Your task to perform on an android device: toggle show notifications on the lock screen Image 0: 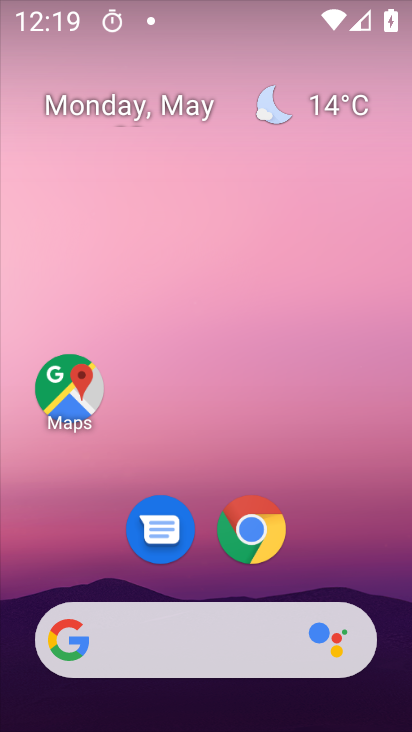
Step 0: drag from (387, 593) to (353, 171)
Your task to perform on an android device: toggle show notifications on the lock screen Image 1: 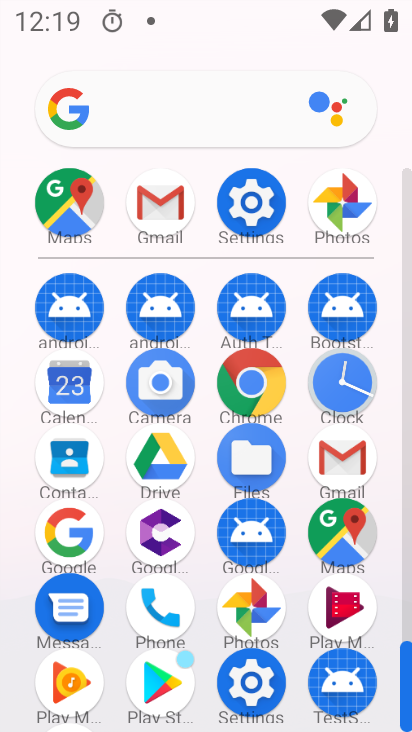
Step 1: click (276, 228)
Your task to perform on an android device: toggle show notifications on the lock screen Image 2: 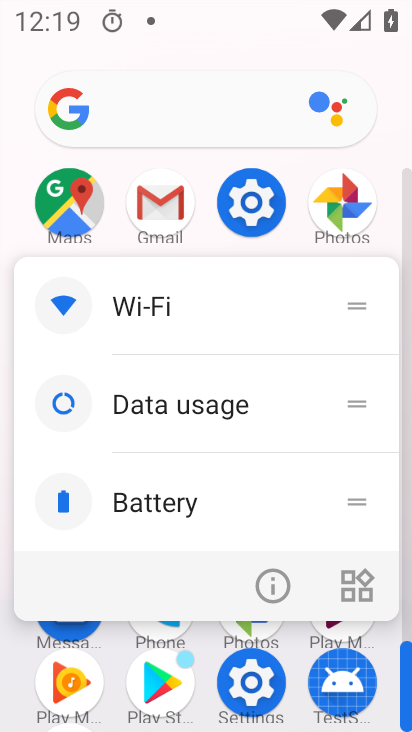
Step 2: click (258, 209)
Your task to perform on an android device: toggle show notifications on the lock screen Image 3: 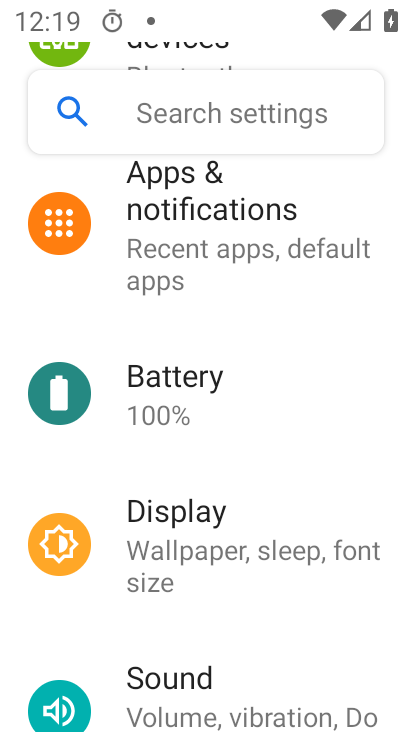
Step 3: drag from (353, 611) to (345, 488)
Your task to perform on an android device: toggle show notifications on the lock screen Image 4: 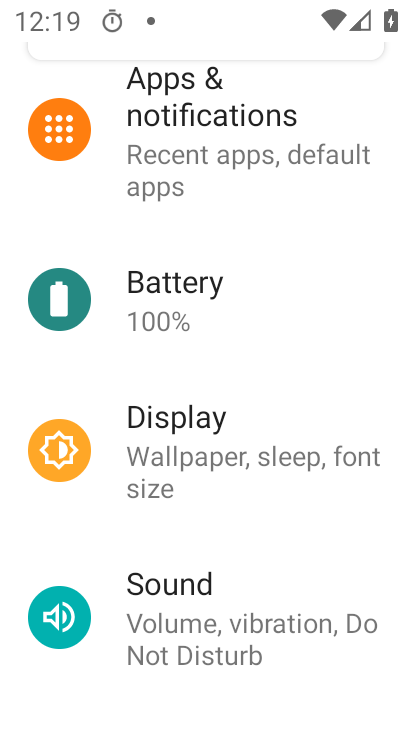
Step 4: drag from (357, 652) to (350, 523)
Your task to perform on an android device: toggle show notifications on the lock screen Image 5: 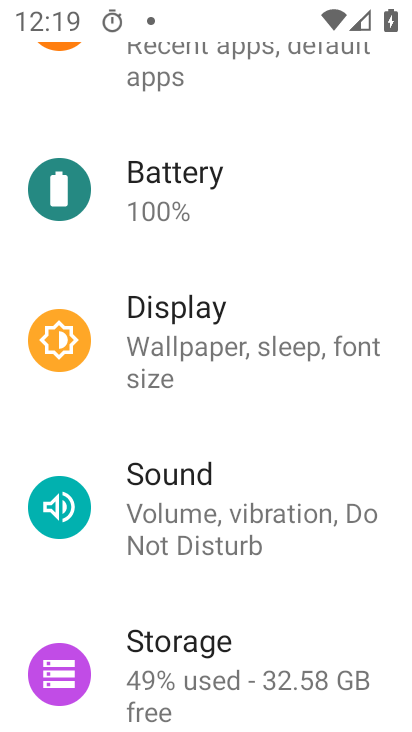
Step 5: drag from (337, 645) to (334, 516)
Your task to perform on an android device: toggle show notifications on the lock screen Image 6: 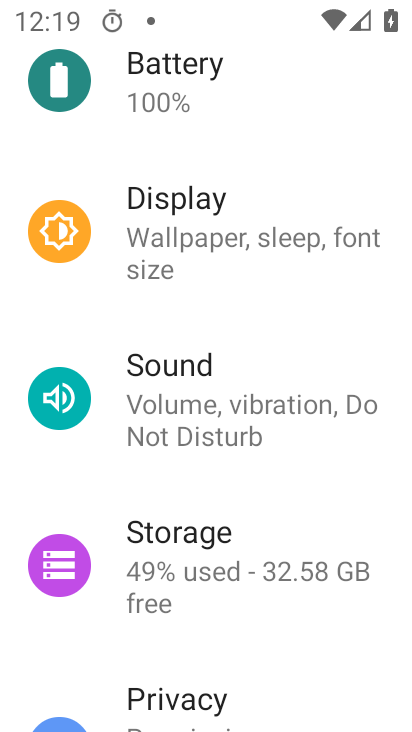
Step 6: drag from (348, 679) to (351, 552)
Your task to perform on an android device: toggle show notifications on the lock screen Image 7: 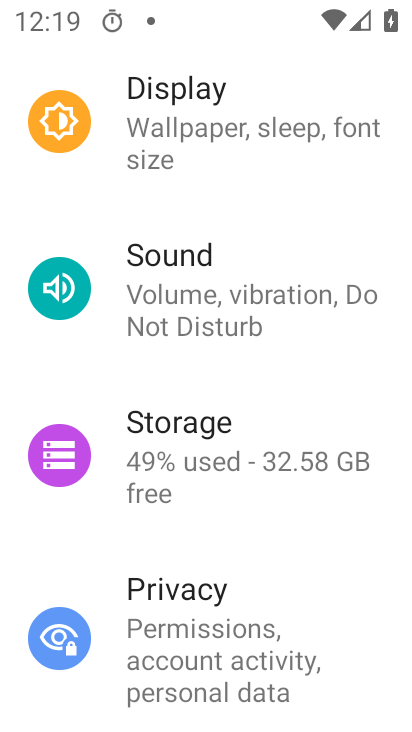
Step 7: drag from (352, 693) to (359, 543)
Your task to perform on an android device: toggle show notifications on the lock screen Image 8: 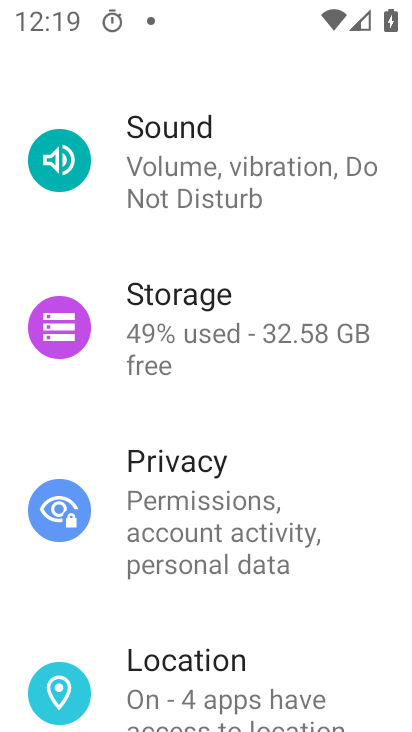
Step 8: drag from (347, 608) to (361, 462)
Your task to perform on an android device: toggle show notifications on the lock screen Image 9: 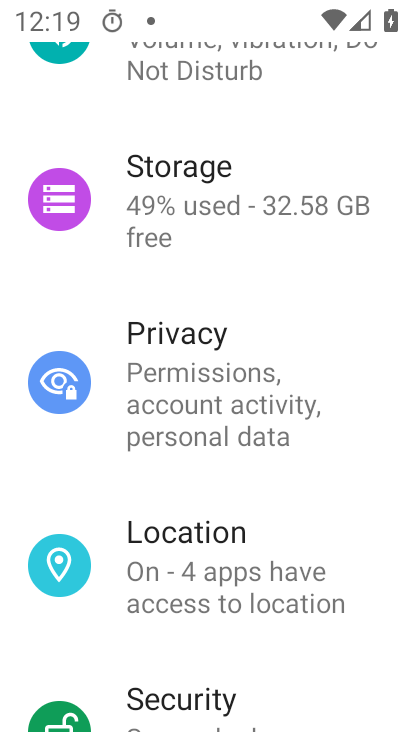
Step 9: drag from (374, 667) to (375, 461)
Your task to perform on an android device: toggle show notifications on the lock screen Image 10: 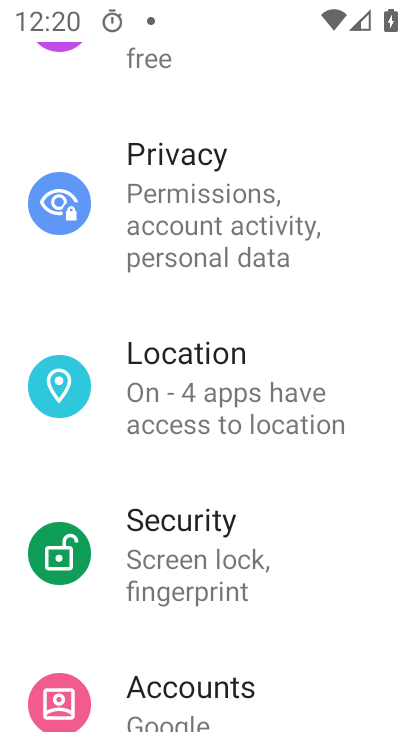
Step 10: drag from (361, 651) to (360, 405)
Your task to perform on an android device: toggle show notifications on the lock screen Image 11: 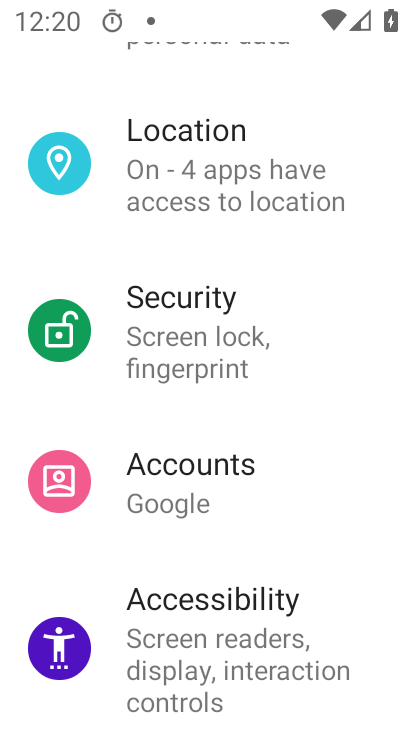
Step 11: drag from (361, 665) to (356, 395)
Your task to perform on an android device: toggle show notifications on the lock screen Image 12: 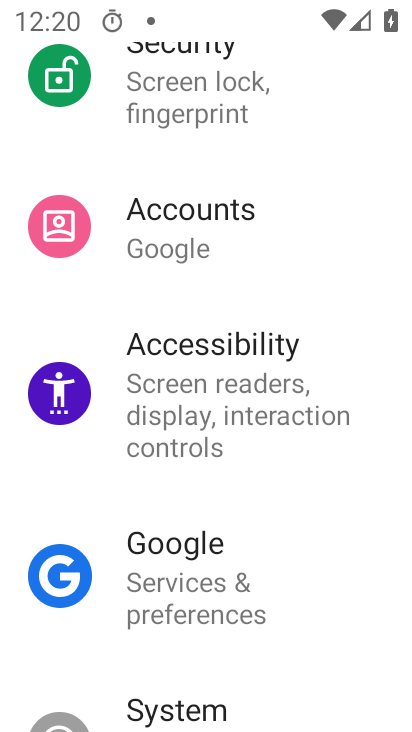
Step 12: drag from (364, 674) to (388, 191)
Your task to perform on an android device: toggle show notifications on the lock screen Image 13: 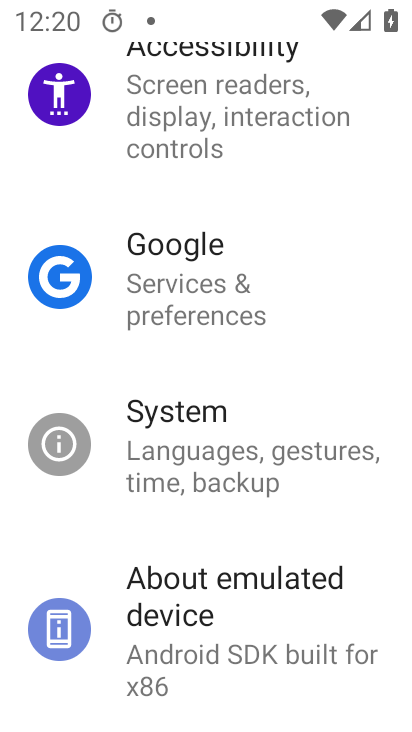
Step 13: drag from (383, 585) to (379, 353)
Your task to perform on an android device: toggle show notifications on the lock screen Image 14: 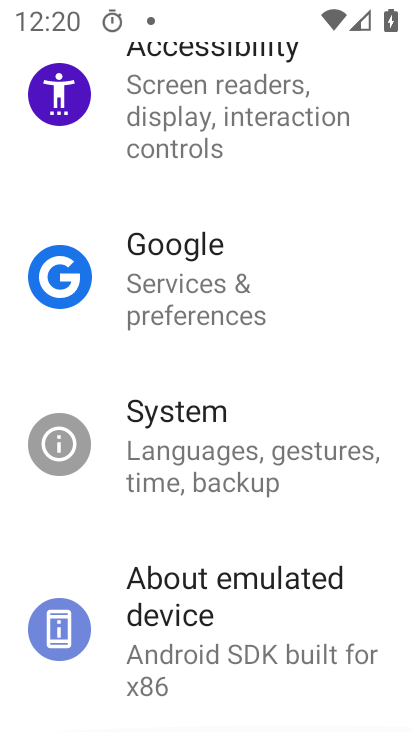
Step 14: drag from (379, 284) to (372, 439)
Your task to perform on an android device: toggle show notifications on the lock screen Image 15: 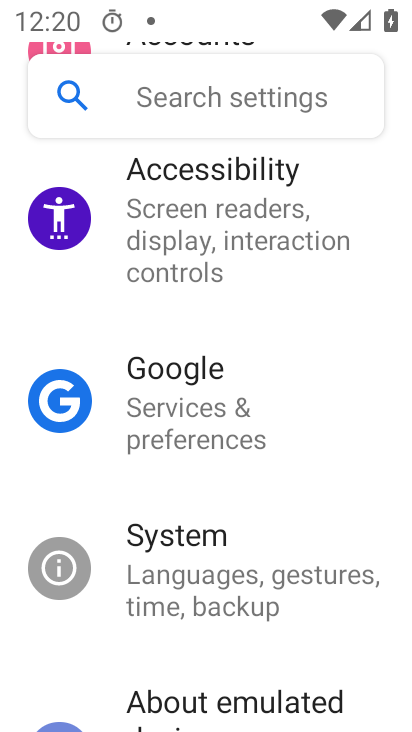
Step 15: drag from (376, 273) to (368, 405)
Your task to perform on an android device: toggle show notifications on the lock screen Image 16: 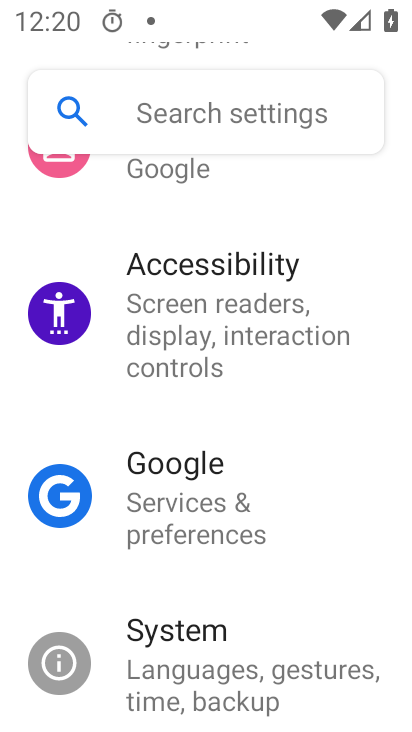
Step 16: drag from (384, 303) to (385, 440)
Your task to perform on an android device: toggle show notifications on the lock screen Image 17: 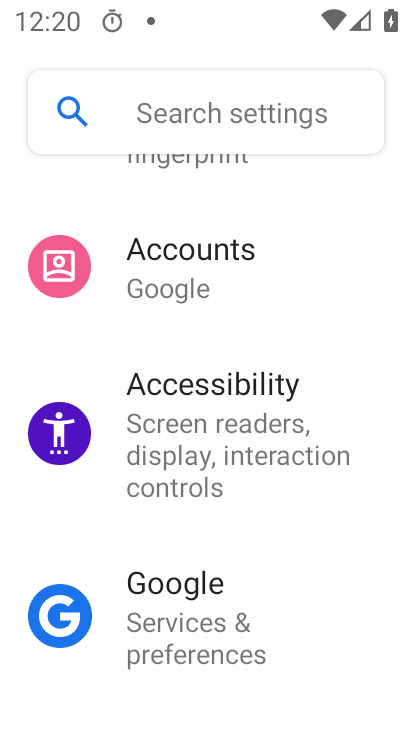
Step 17: drag from (385, 279) to (323, 580)
Your task to perform on an android device: toggle show notifications on the lock screen Image 18: 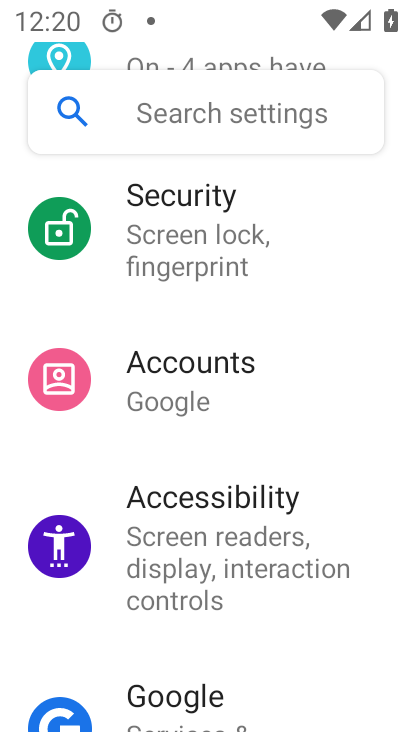
Step 18: drag from (362, 335) to (361, 472)
Your task to perform on an android device: toggle show notifications on the lock screen Image 19: 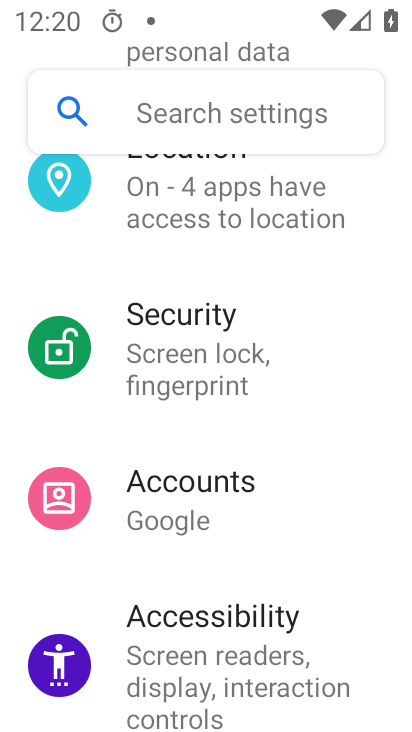
Step 19: drag from (354, 295) to (353, 408)
Your task to perform on an android device: toggle show notifications on the lock screen Image 20: 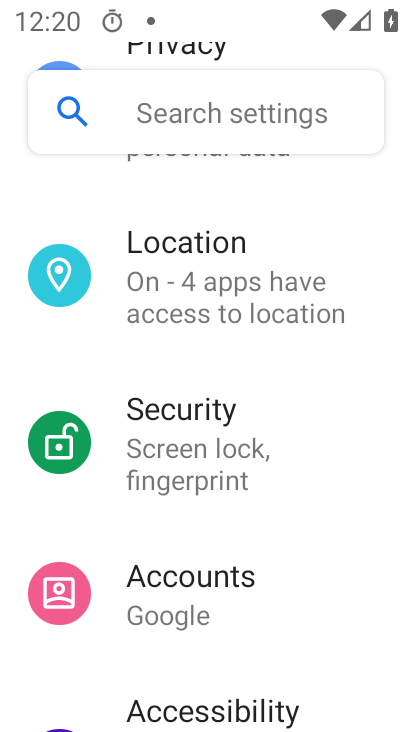
Step 20: drag from (357, 233) to (360, 377)
Your task to perform on an android device: toggle show notifications on the lock screen Image 21: 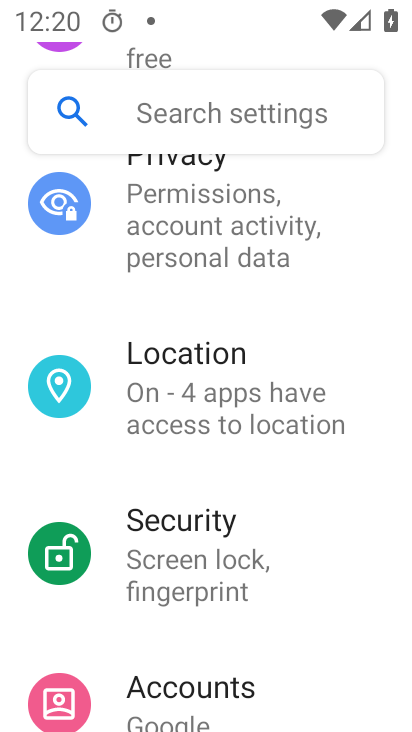
Step 21: drag from (370, 217) to (369, 382)
Your task to perform on an android device: toggle show notifications on the lock screen Image 22: 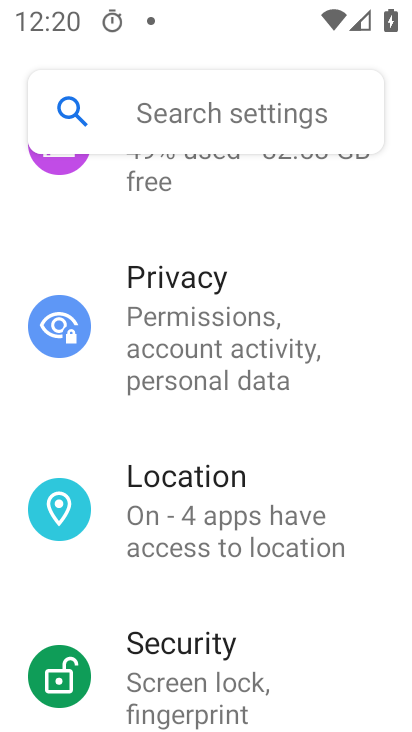
Step 22: drag from (374, 185) to (371, 350)
Your task to perform on an android device: toggle show notifications on the lock screen Image 23: 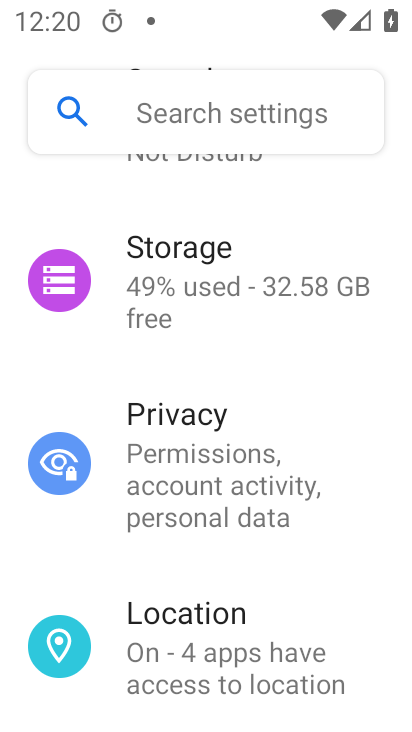
Step 23: drag from (385, 160) to (389, 324)
Your task to perform on an android device: toggle show notifications on the lock screen Image 24: 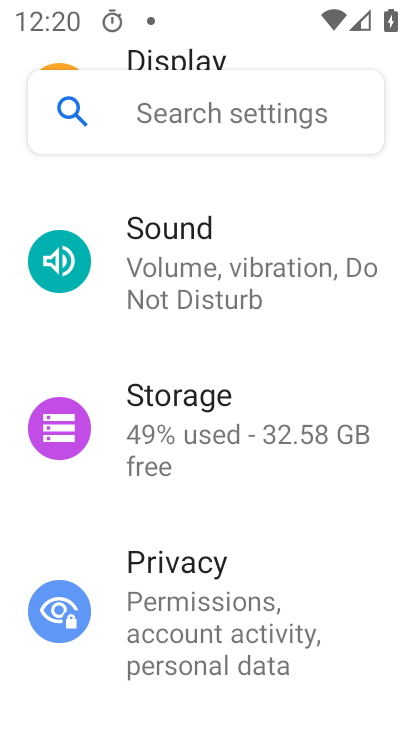
Step 24: drag from (384, 180) to (373, 324)
Your task to perform on an android device: toggle show notifications on the lock screen Image 25: 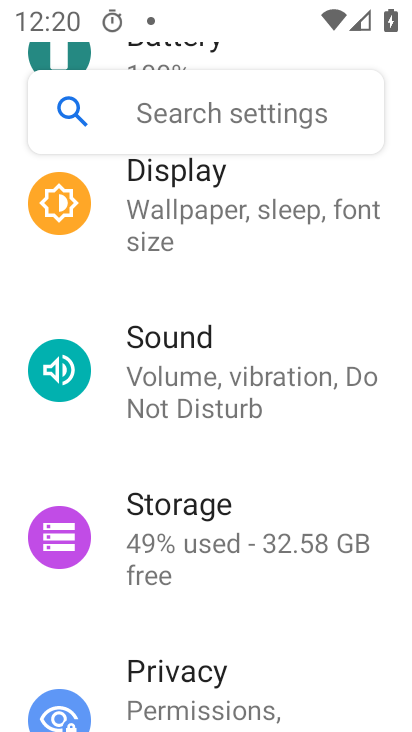
Step 25: drag from (379, 172) to (370, 302)
Your task to perform on an android device: toggle show notifications on the lock screen Image 26: 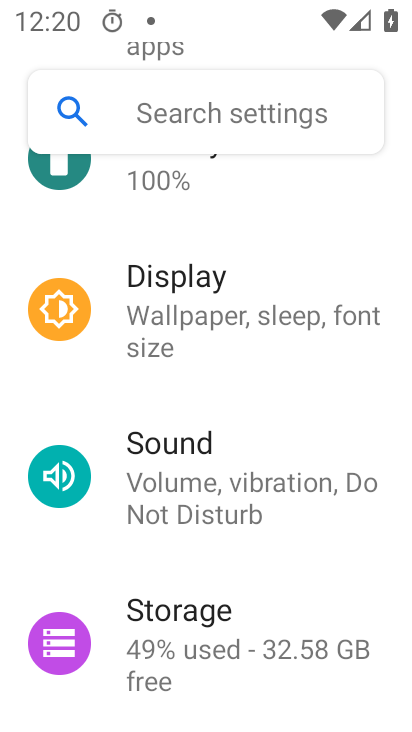
Step 26: drag from (325, 185) to (329, 468)
Your task to perform on an android device: toggle show notifications on the lock screen Image 27: 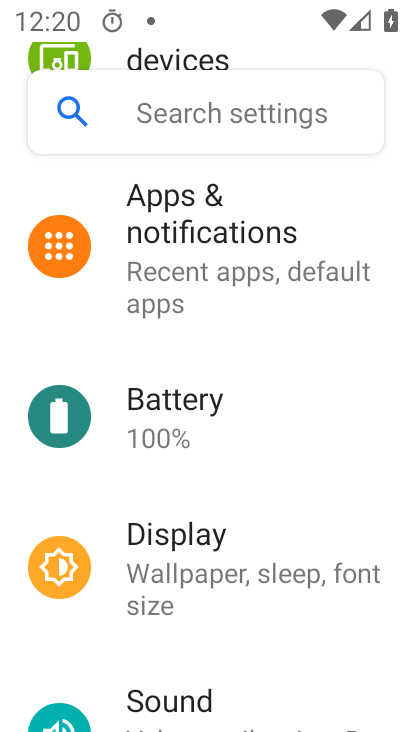
Step 27: click (267, 234)
Your task to perform on an android device: toggle show notifications on the lock screen Image 28: 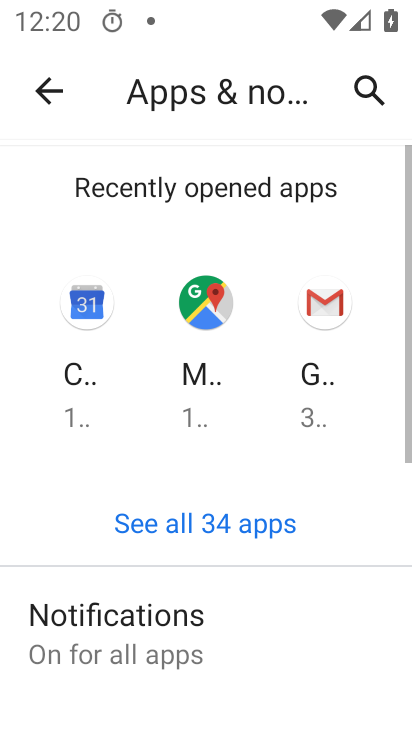
Step 28: drag from (283, 493) to (268, 204)
Your task to perform on an android device: toggle show notifications on the lock screen Image 29: 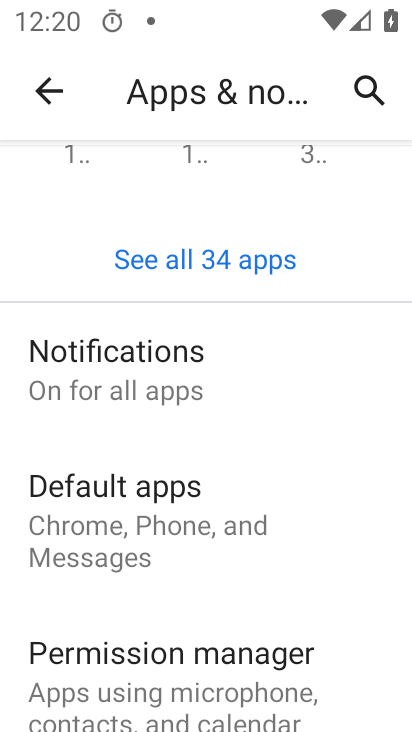
Step 29: click (222, 386)
Your task to perform on an android device: toggle show notifications on the lock screen Image 30: 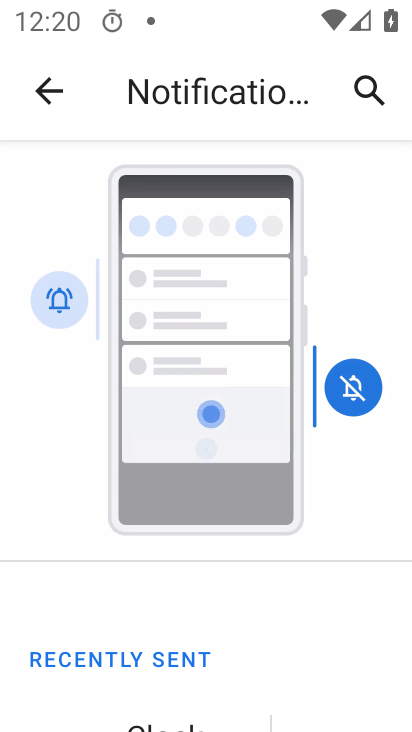
Step 30: drag from (332, 568) to (333, 340)
Your task to perform on an android device: toggle show notifications on the lock screen Image 31: 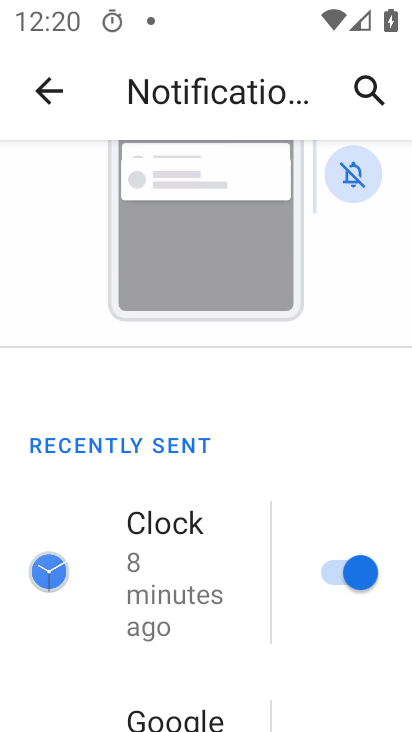
Step 31: drag from (299, 555) to (288, 375)
Your task to perform on an android device: toggle show notifications on the lock screen Image 32: 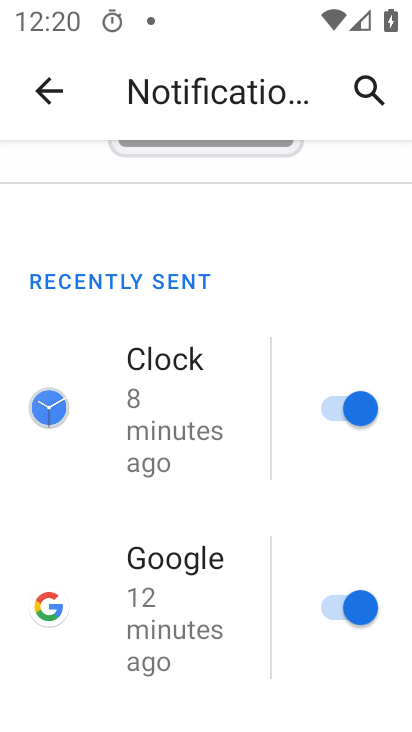
Step 32: drag from (290, 566) to (298, 403)
Your task to perform on an android device: toggle show notifications on the lock screen Image 33: 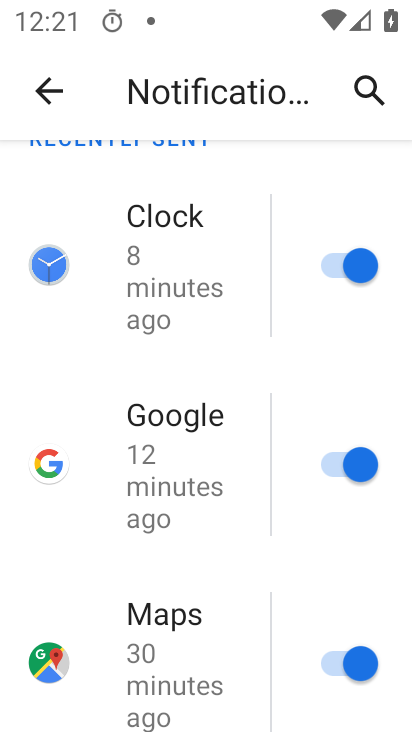
Step 33: drag from (294, 620) to (291, 423)
Your task to perform on an android device: toggle show notifications on the lock screen Image 34: 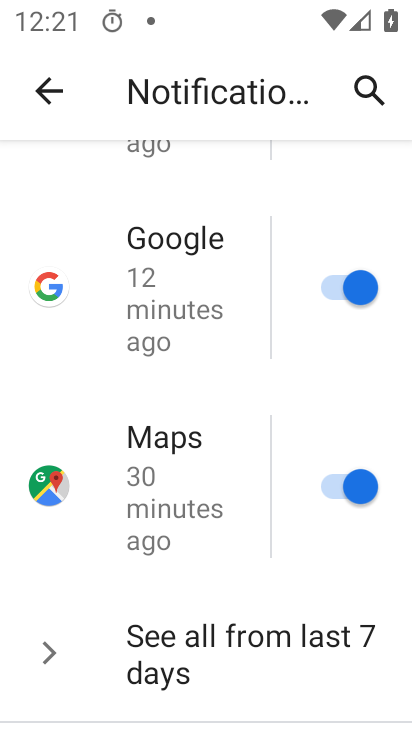
Step 34: drag from (300, 661) to (294, 451)
Your task to perform on an android device: toggle show notifications on the lock screen Image 35: 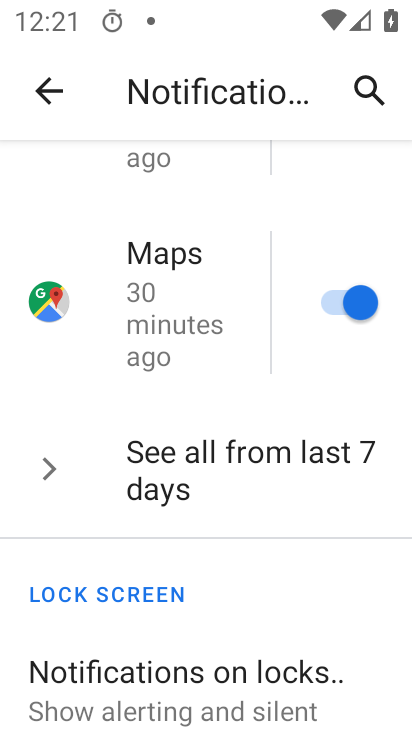
Step 35: click (272, 671)
Your task to perform on an android device: toggle show notifications on the lock screen Image 36: 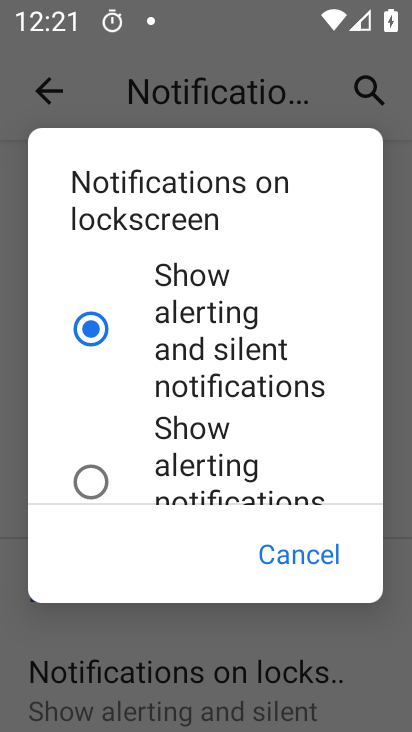
Step 36: drag from (194, 440) to (201, 302)
Your task to perform on an android device: toggle show notifications on the lock screen Image 37: 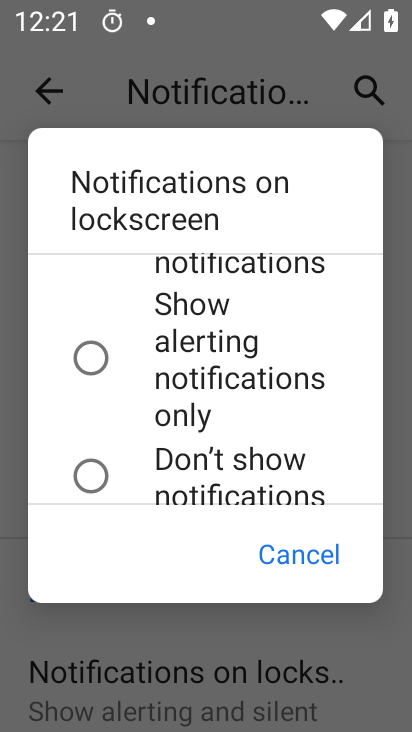
Step 37: click (98, 349)
Your task to perform on an android device: toggle show notifications on the lock screen Image 38: 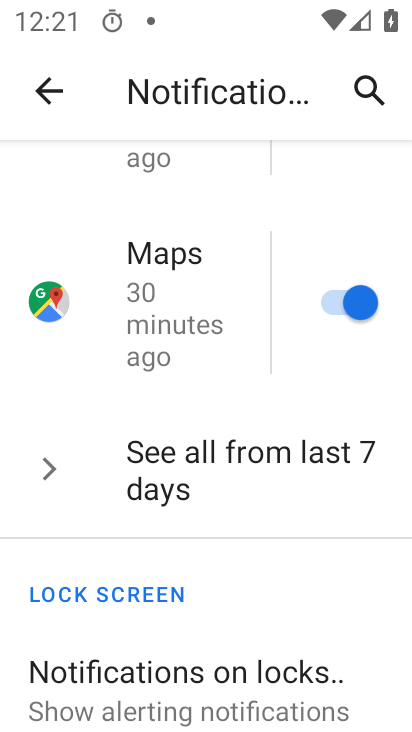
Step 38: task complete